Your task to perform on an android device: Check the weather Image 0: 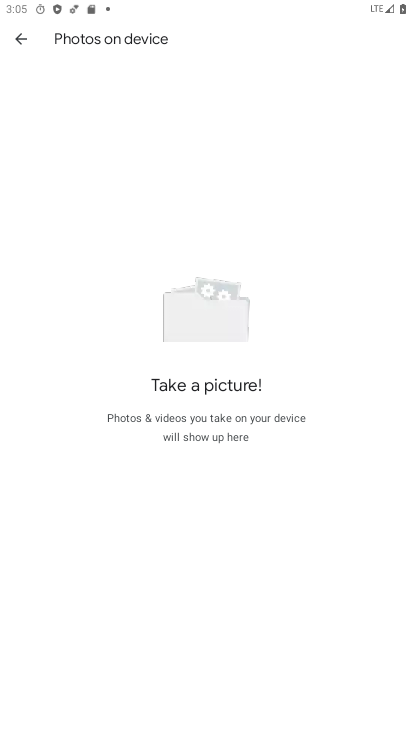
Step 0: press home button
Your task to perform on an android device: Check the weather Image 1: 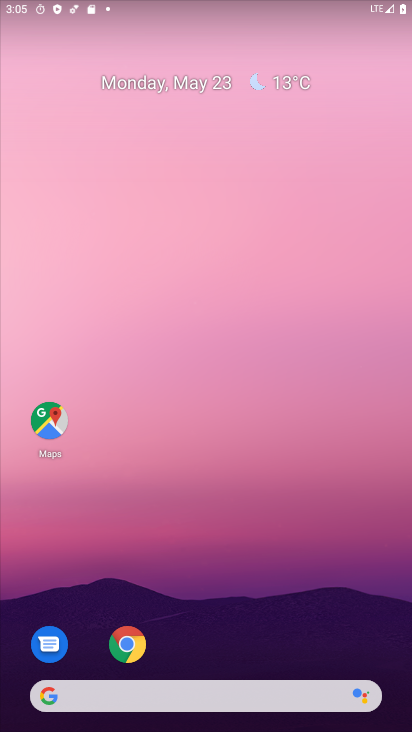
Step 1: click (203, 688)
Your task to perform on an android device: Check the weather Image 2: 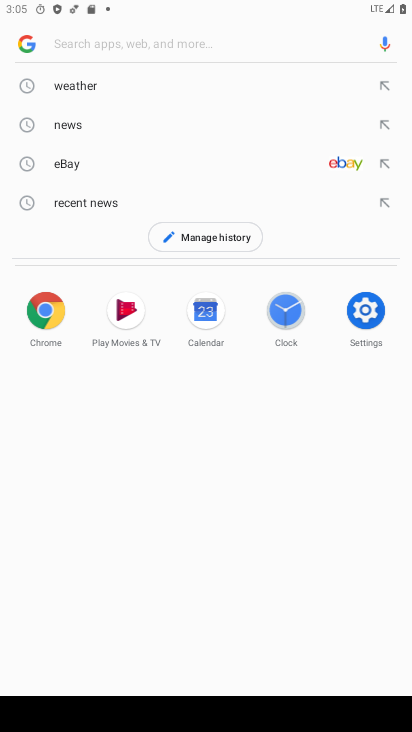
Step 2: click (83, 71)
Your task to perform on an android device: Check the weather Image 3: 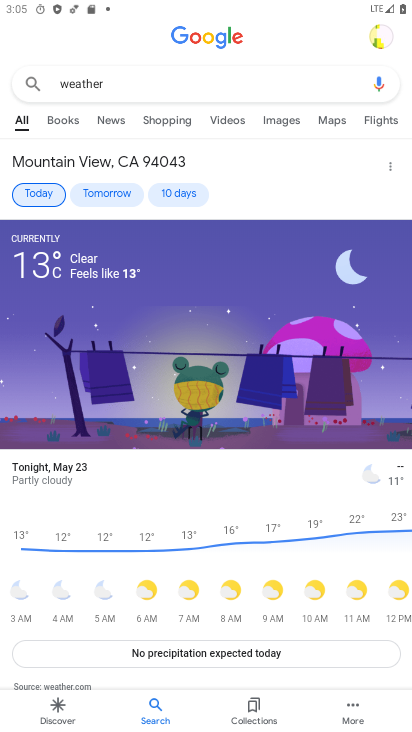
Step 3: task complete